Your task to perform on an android device: change the clock display to analog Image 0: 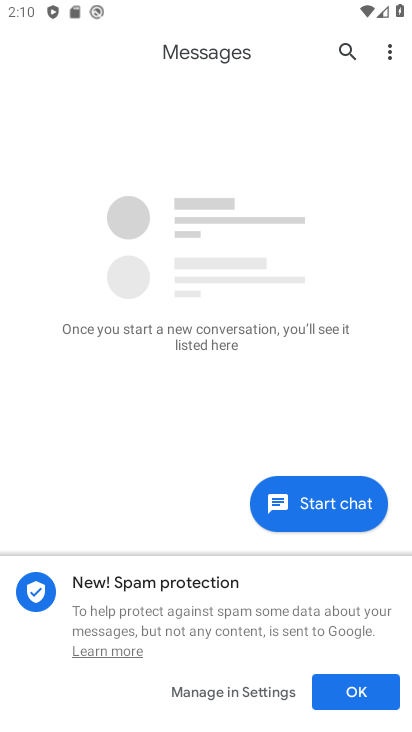
Step 0: press home button
Your task to perform on an android device: change the clock display to analog Image 1: 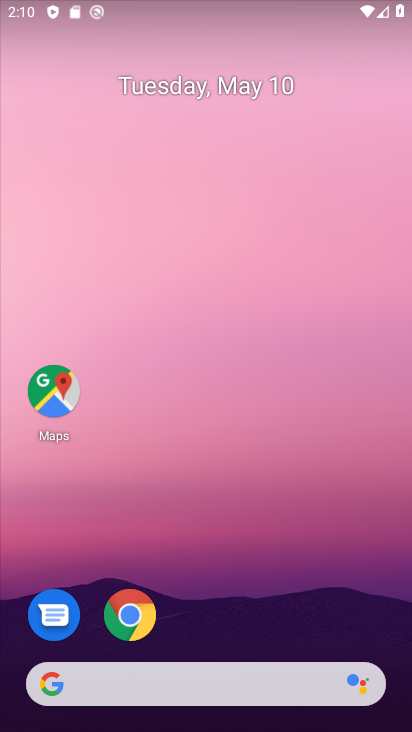
Step 1: drag from (280, 641) to (255, 195)
Your task to perform on an android device: change the clock display to analog Image 2: 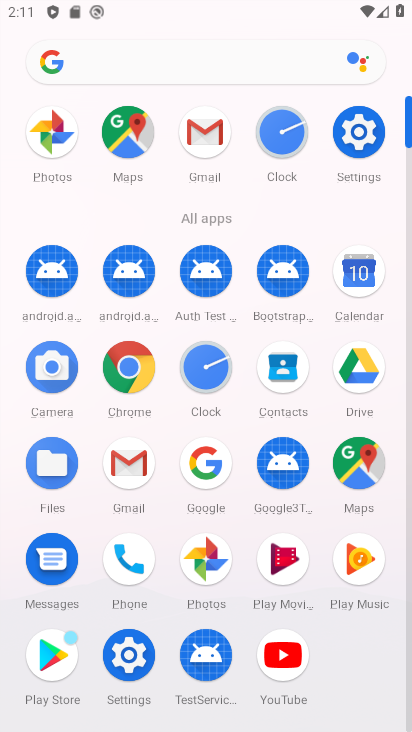
Step 2: click (212, 384)
Your task to perform on an android device: change the clock display to analog Image 3: 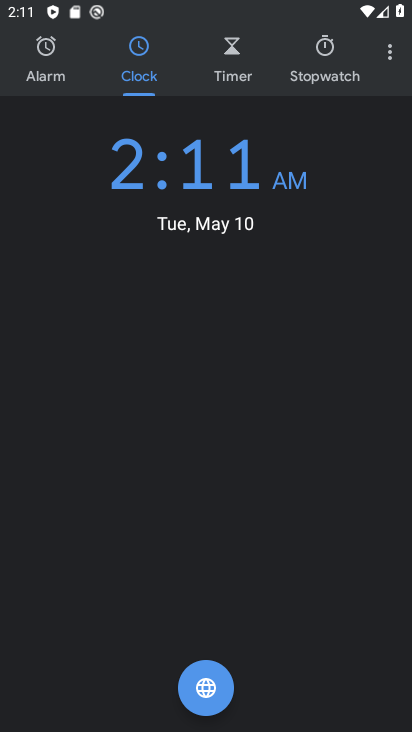
Step 3: click (385, 60)
Your task to perform on an android device: change the clock display to analog Image 4: 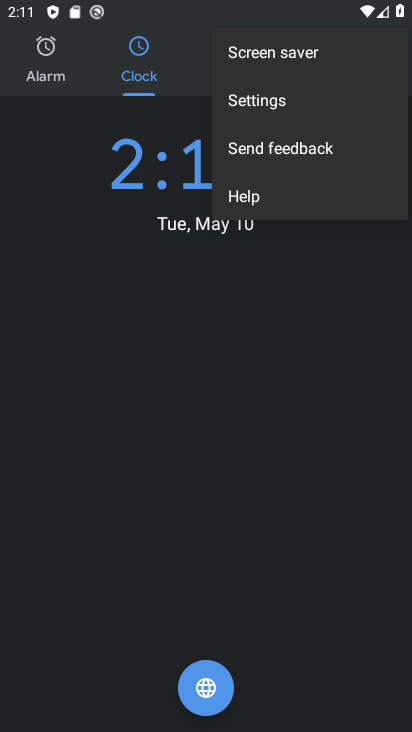
Step 4: click (336, 91)
Your task to perform on an android device: change the clock display to analog Image 5: 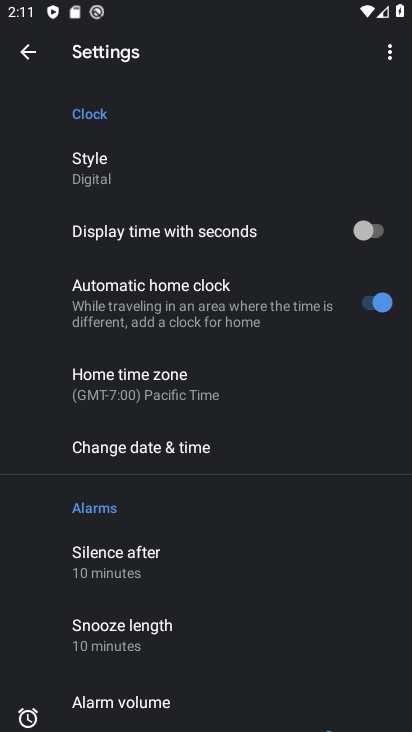
Step 5: click (94, 160)
Your task to perform on an android device: change the clock display to analog Image 6: 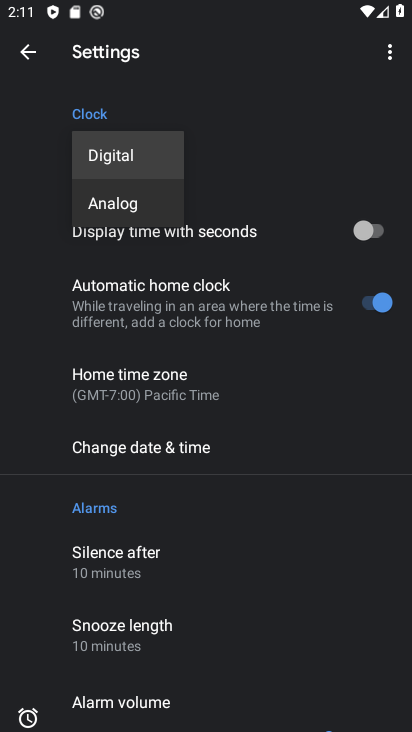
Step 6: click (116, 197)
Your task to perform on an android device: change the clock display to analog Image 7: 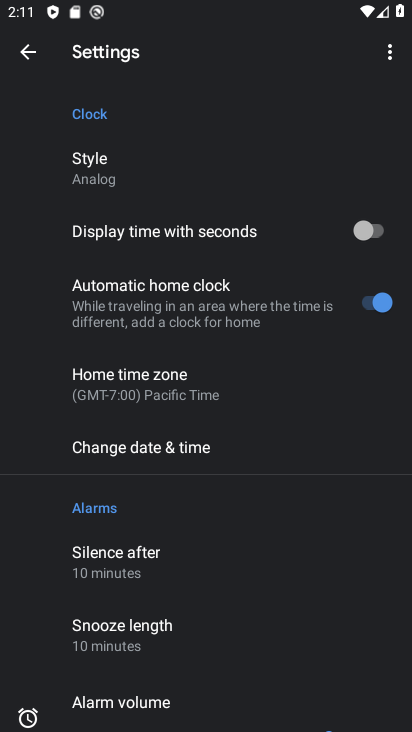
Step 7: task complete